Your task to perform on an android device: What's the weather? Image 0: 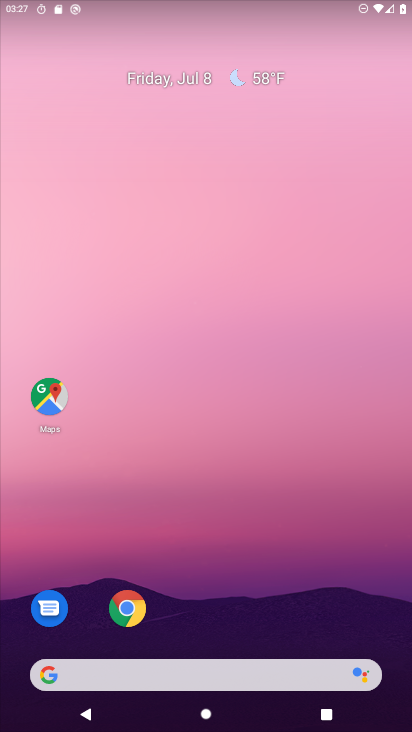
Step 0: drag from (257, 723) to (252, 145)
Your task to perform on an android device: What's the weather? Image 1: 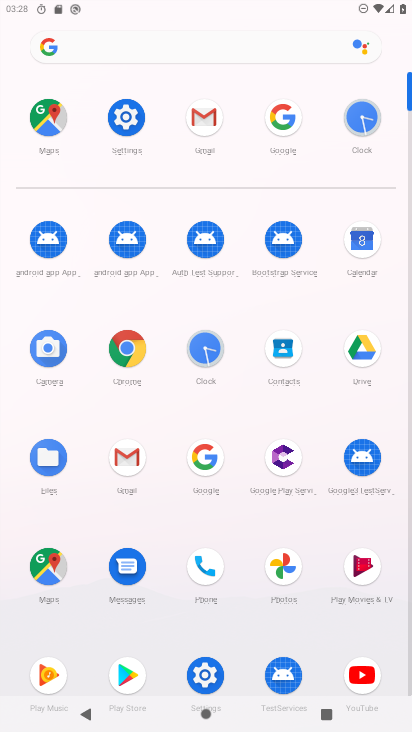
Step 1: click (205, 456)
Your task to perform on an android device: What's the weather? Image 2: 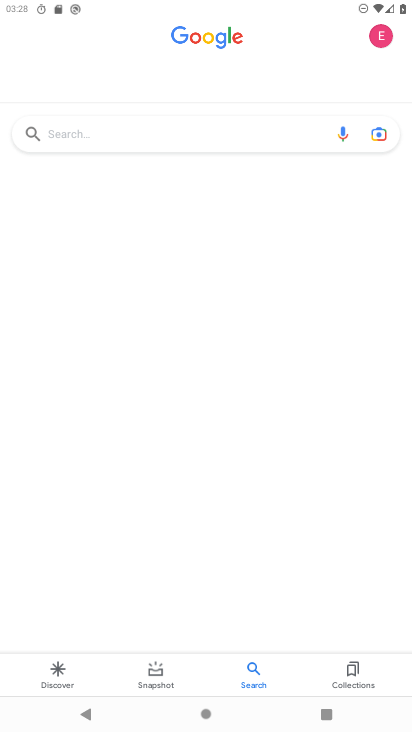
Step 2: click (133, 136)
Your task to perform on an android device: What's the weather? Image 3: 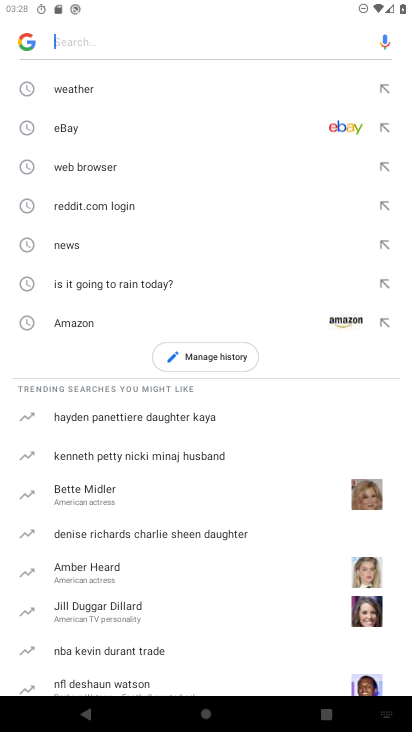
Step 3: click (72, 83)
Your task to perform on an android device: What's the weather? Image 4: 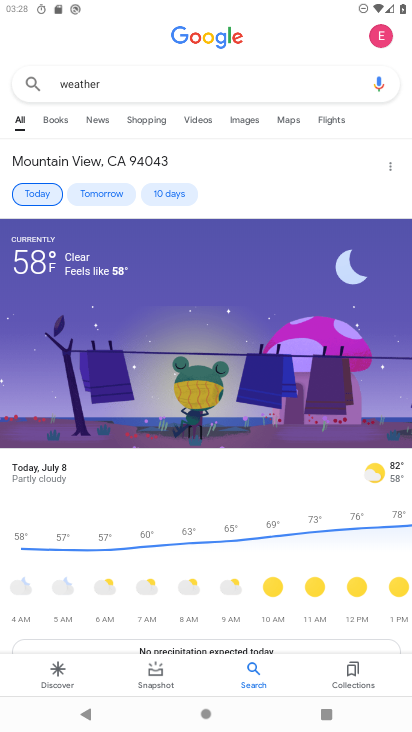
Step 4: task complete